Your task to perform on an android device: Open the phone app and click the voicemail tab. Image 0: 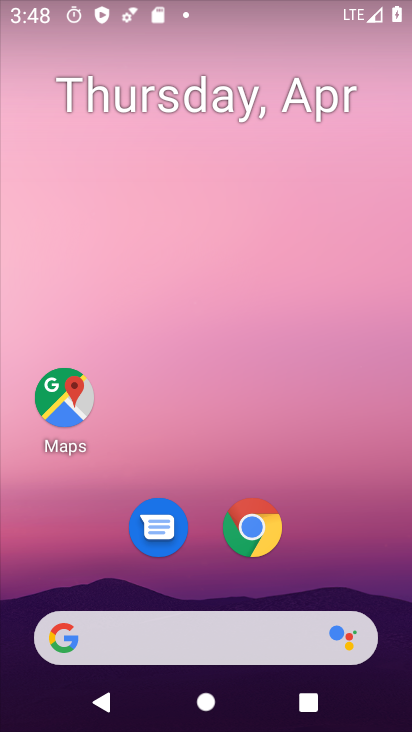
Step 0: drag from (316, 515) to (294, 88)
Your task to perform on an android device: Open the phone app and click the voicemail tab. Image 1: 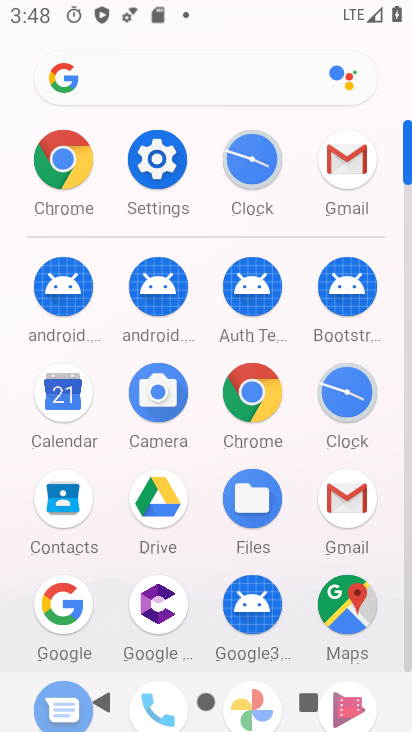
Step 1: drag from (199, 571) to (227, 234)
Your task to perform on an android device: Open the phone app and click the voicemail tab. Image 2: 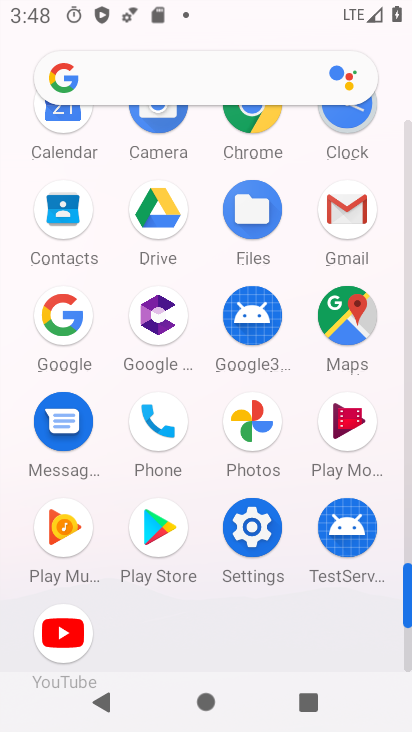
Step 2: click (162, 431)
Your task to perform on an android device: Open the phone app and click the voicemail tab. Image 3: 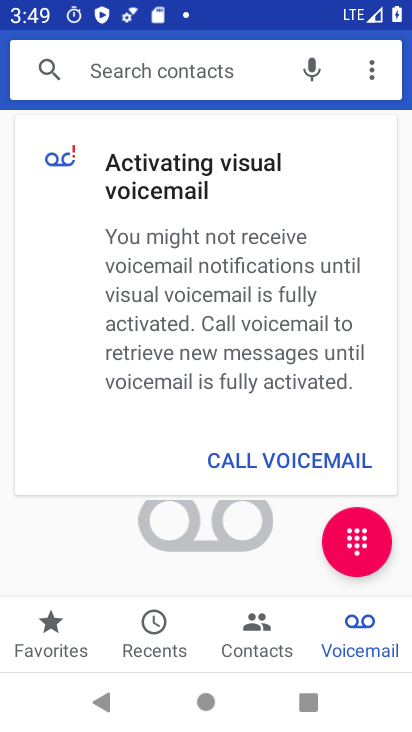
Step 3: click (357, 650)
Your task to perform on an android device: Open the phone app and click the voicemail tab. Image 4: 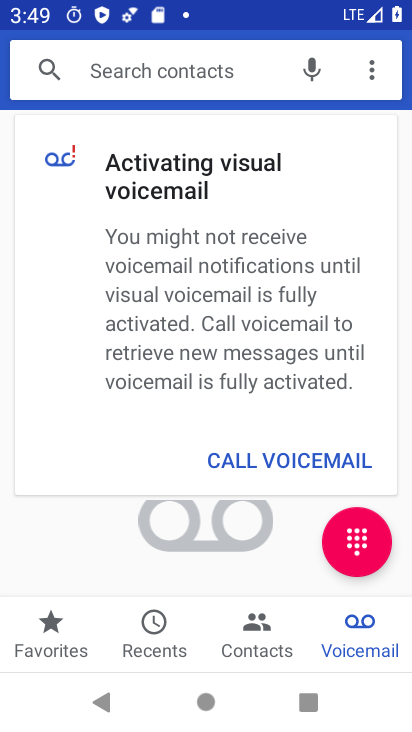
Step 4: task complete